Your task to perform on an android device: Do I have any events today? Image 0: 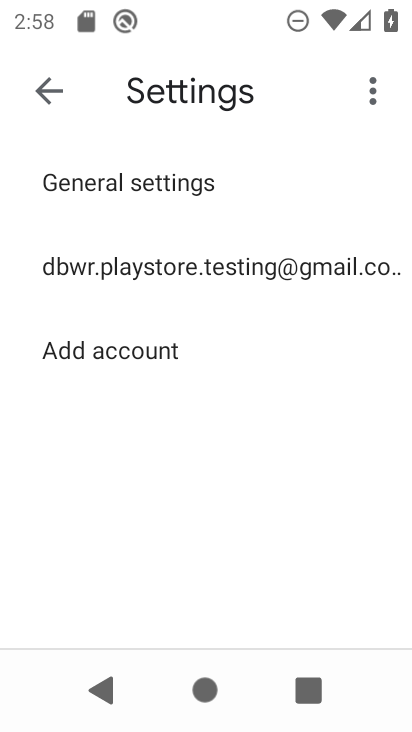
Step 0: press home button
Your task to perform on an android device: Do I have any events today? Image 1: 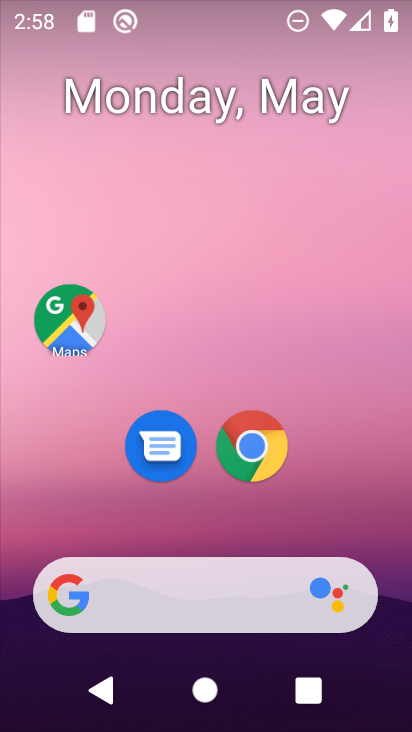
Step 1: click (122, 73)
Your task to perform on an android device: Do I have any events today? Image 2: 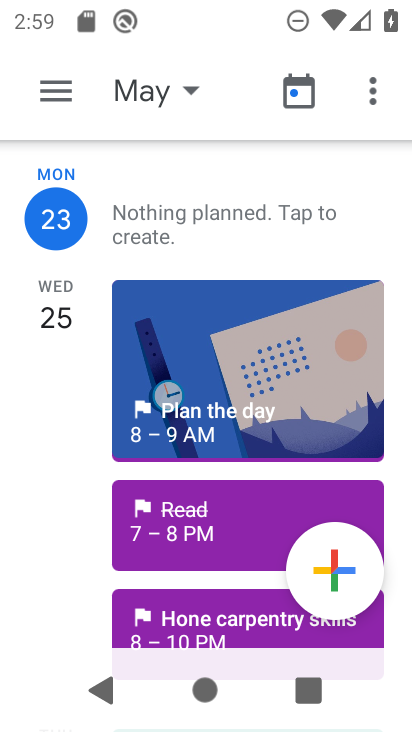
Step 2: click (186, 527)
Your task to perform on an android device: Do I have any events today? Image 3: 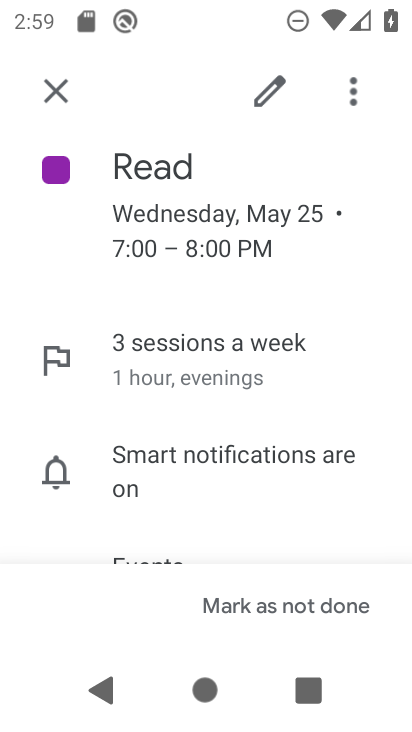
Step 3: task complete